Your task to perform on an android device: Open the stopwatch Image 0: 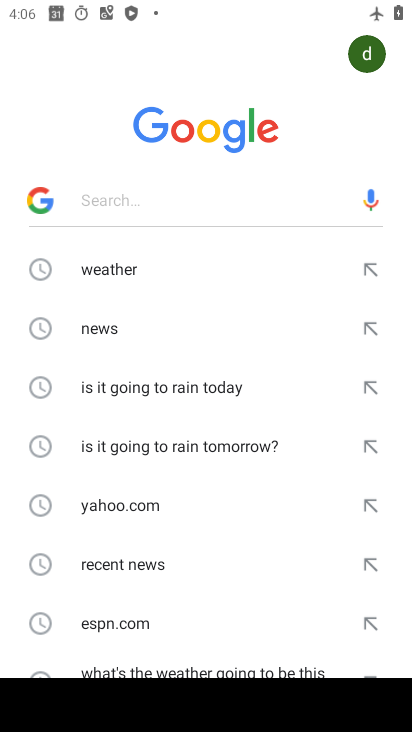
Step 0: press home button
Your task to perform on an android device: Open the stopwatch Image 1: 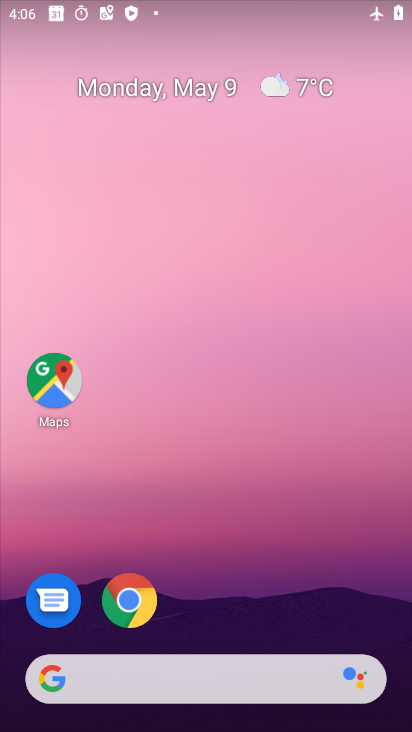
Step 1: drag from (333, 511) to (354, 57)
Your task to perform on an android device: Open the stopwatch Image 2: 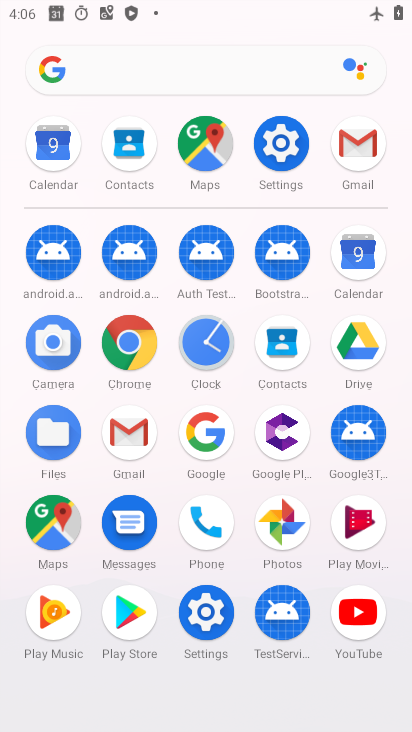
Step 2: click (220, 341)
Your task to perform on an android device: Open the stopwatch Image 3: 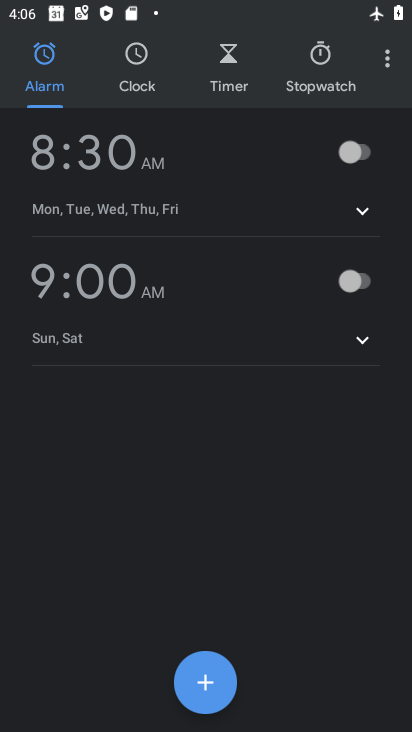
Step 3: click (325, 55)
Your task to perform on an android device: Open the stopwatch Image 4: 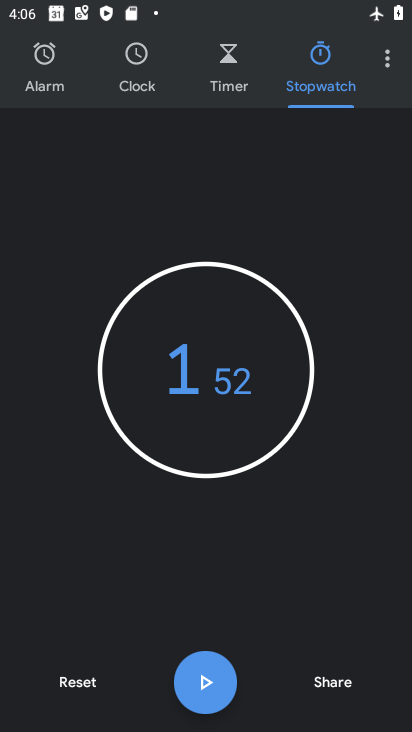
Step 4: task complete